Your task to perform on an android device: toggle location history Image 0: 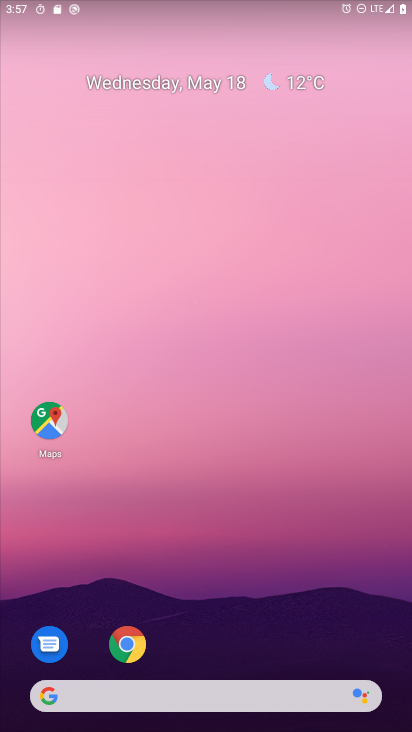
Step 0: drag from (397, 626) to (367, 69)
Your task to perform on an android device: toggle location history Image 1: 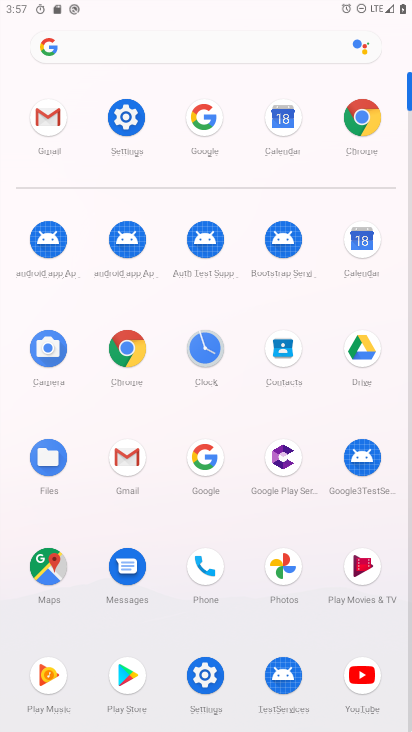
Step 1: click (126, 117)
Your task to perform on an android device: toggle location history Image 2: 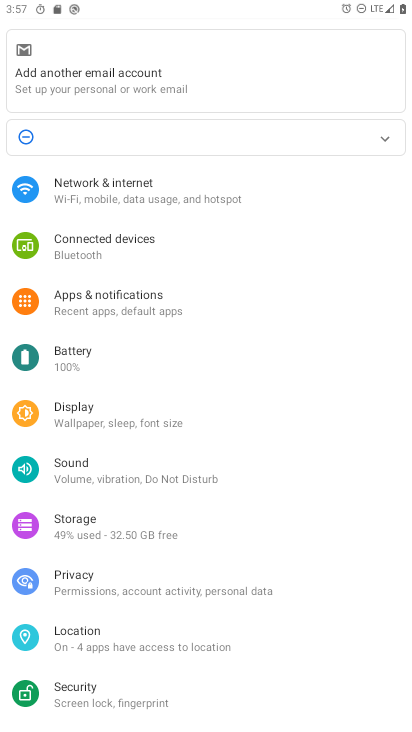
Step 2: click (58, 634)
Your task to perform on an android device: toggle location history Image 3: 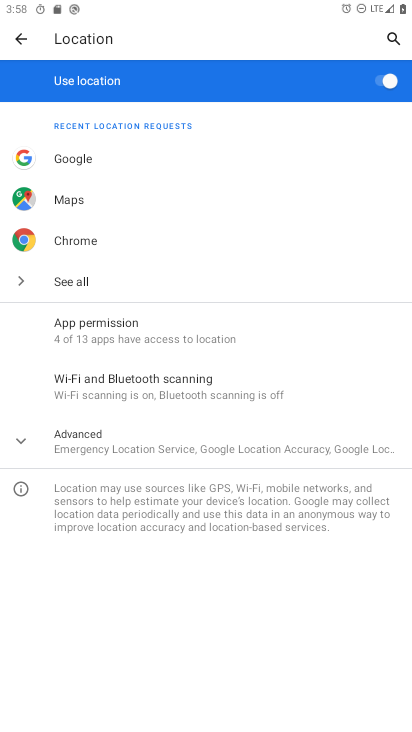
Step 3: click (20, 443)
Your task to perform on an android device: toggle location history Image 4: 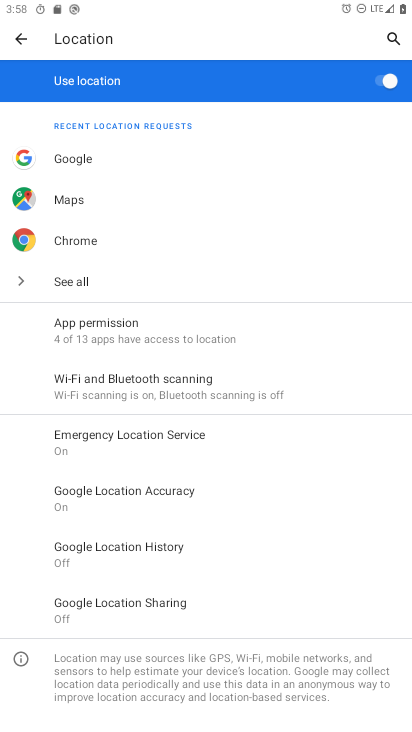
Step 4: click (106, 548)
Your task to perform on an android device: toggle location history Image 5: 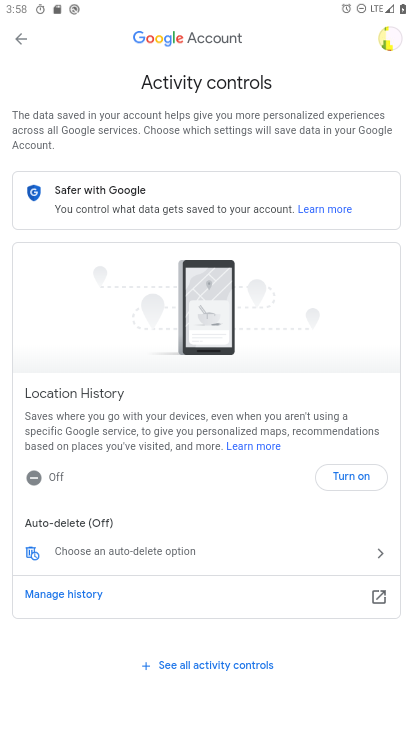
Step 5: click (343, 473)
Your task to perform on an android device: toggle location history Image 6: 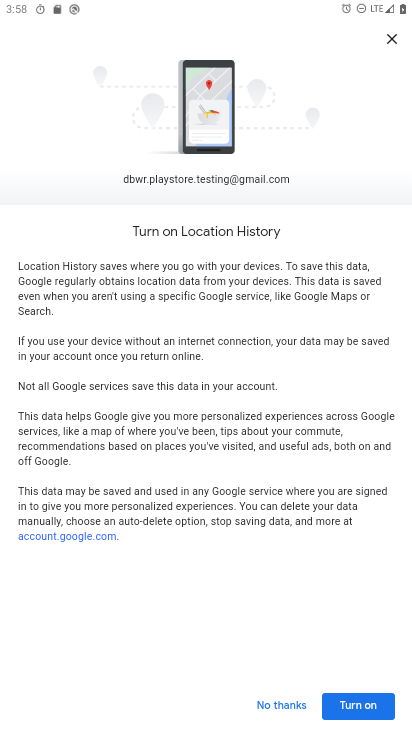
Step 6: click (335, 705)
Your task to perform on an android device: toggle location history Image 7: 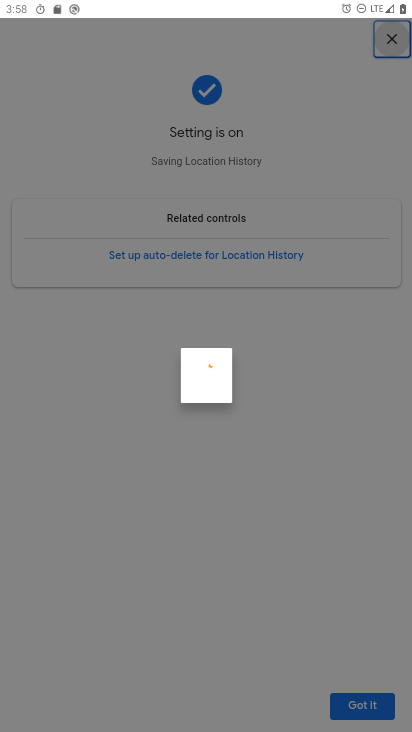
Step 7: click (347, 704)
Your task to perform on an android device: toggle location history Image 8: 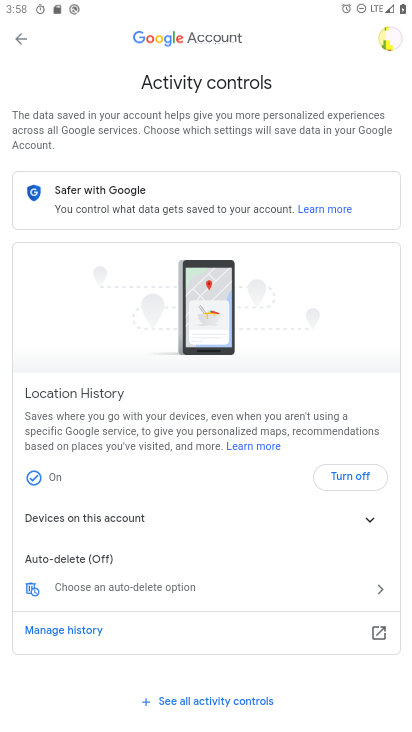
Step 8: task complete